Your task to perform on an android device: install app "The Home Depot" Image 0: 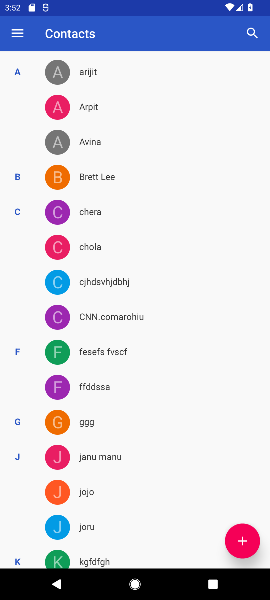
Step 0: press home button
Your task to perform on an android device: install app "The Home Depot" Image 1: 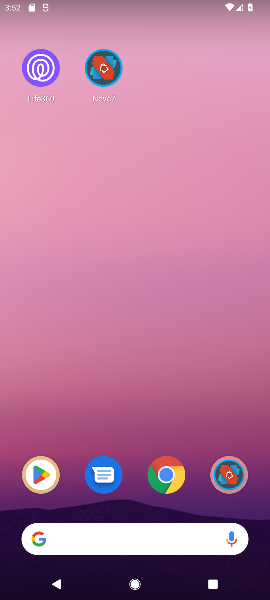
Step 1: drag from (162, 412) to (121, 9)
Your task to perform on an android device: install app "The Home Depot" Image 2: 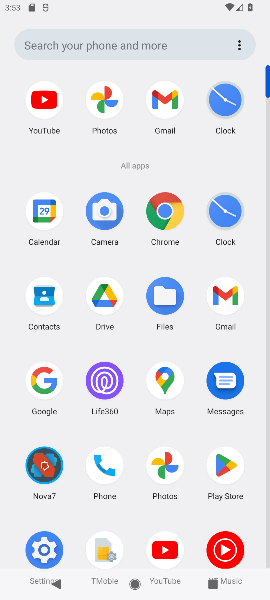
Step 2: drag from (121, 505) to (121, 154)
Your task to perform on an android device: install app "The Home Depot" Image 3: 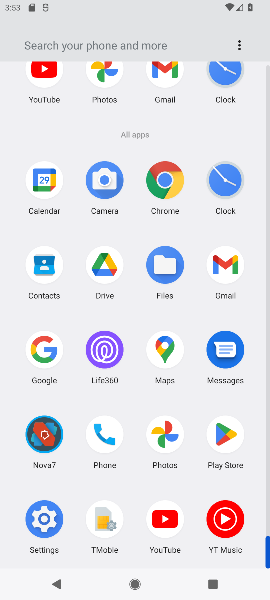
Step 3: click (219, 437)
Your task to perform on an android device: install app "The Home Depot" Image 4: 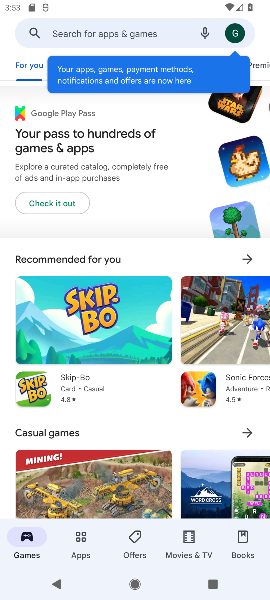
Step 4: click (123, 32)
Your task to perform on an android device: install app "The Home Depot" Image 5: 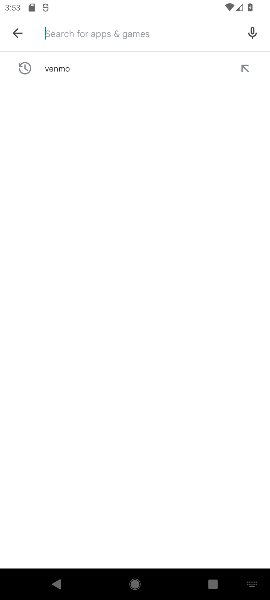
Step 5: type "The Home Depot"
Your task to perform on an android device: install app "The Home Depot" Image 6: 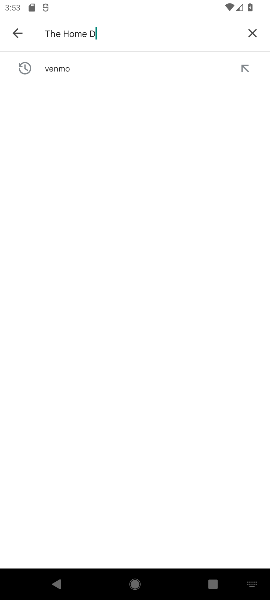
Step 6: type ""
Your task to perform on an android device: install app "The Home Depot" Image 7: 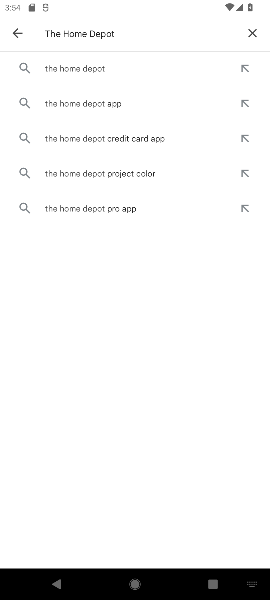
Step 7: click (79, 66)
Your task to perform on an android device: install app "The Home Depot" Image 8: 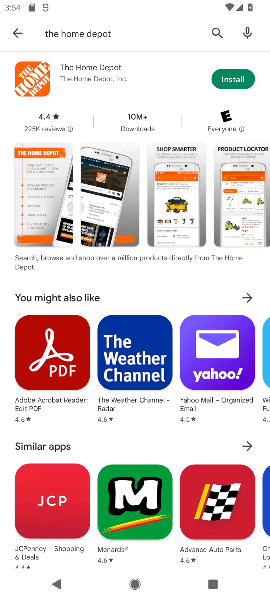
Step 8: click (234, 79)
Your task to perform on an android device: install app "The Home Depot" Image 9: 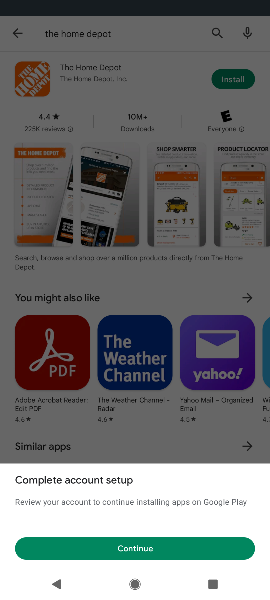
Step 9: click (90, 546)
Your task to perform on an android device: install app "The Home Depot" Image 10: 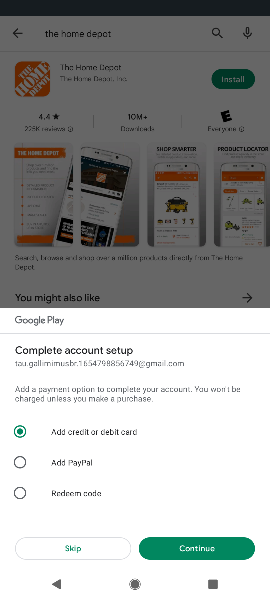
Step 10: click (54, 550)
Your task to perform on an android device: install app "The Home Depot" Image 11: 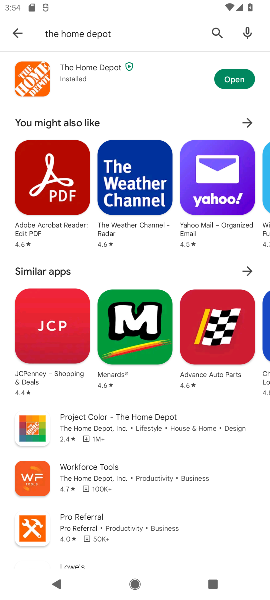
Step 11: task complete